Your task to perform on an android device: Open location settings Image 0: 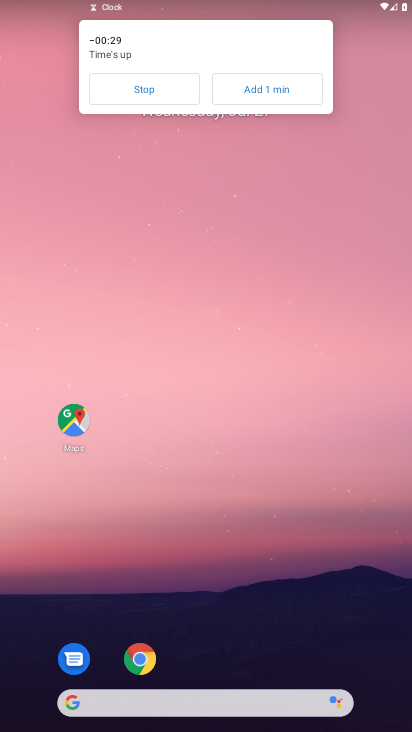
Step 0: click (110, 97)
Your task to perform on an android device: Open location settings Image 1: 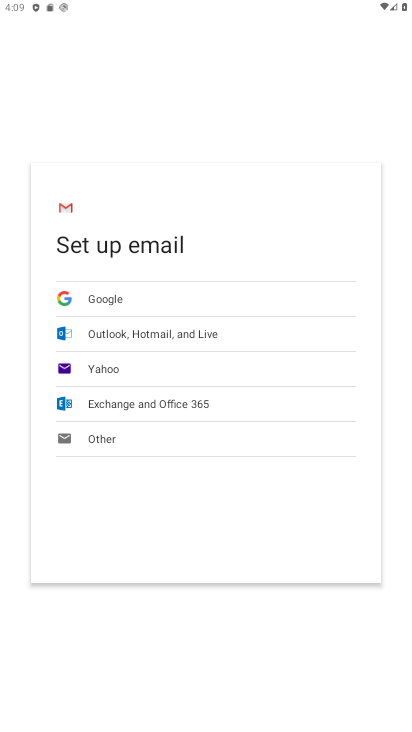
Step 1: press home button
Your task to perform on an android device: Open location settings Image 2: 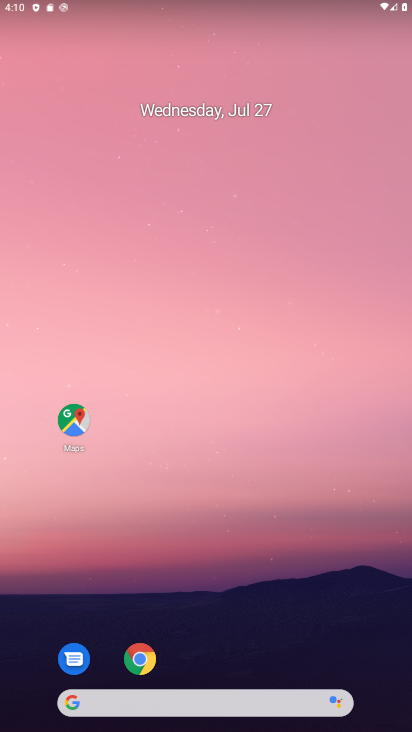
Step 2: drag from (271, 643) to (271, 201)
Your task to perform on an android device: Open location settings Image 3: 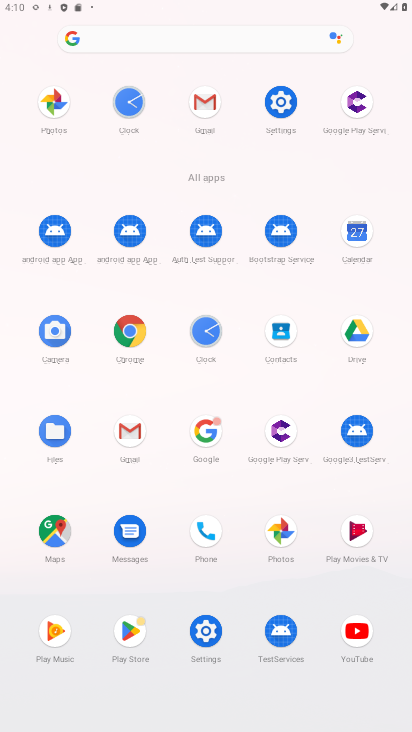
Step 3: click (202, 630)
Your task to perform on an android device: Open location settings Image 4: 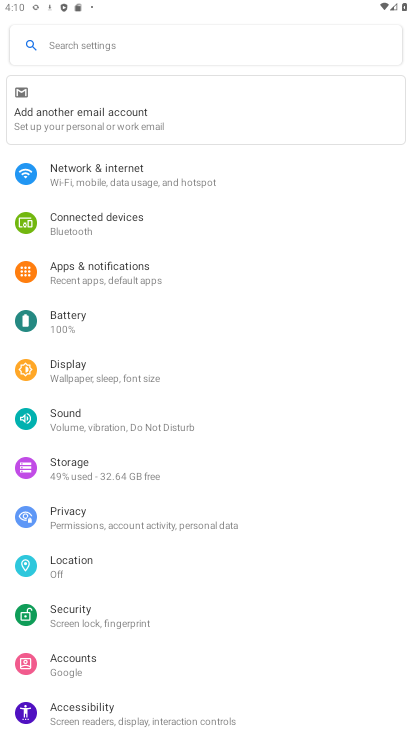
Step 4: click (53, 573)
Your task to perform on an android device: Open location settings Image 5: 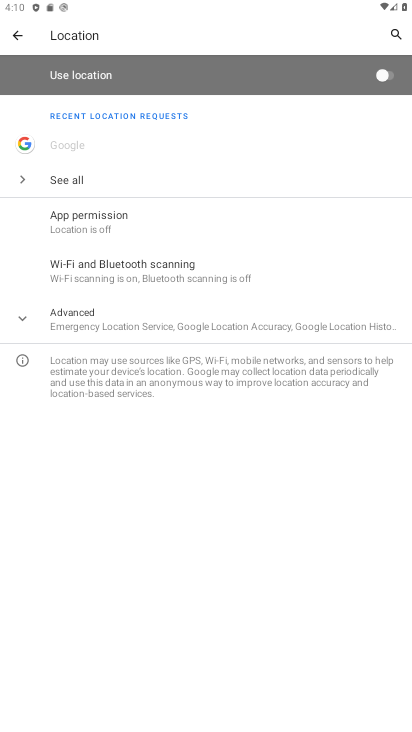
Step 5: task complete